Your task to perform on an android device: open app "DuckDuckGo Privacy Browser" (install if not already installed) Image 0: 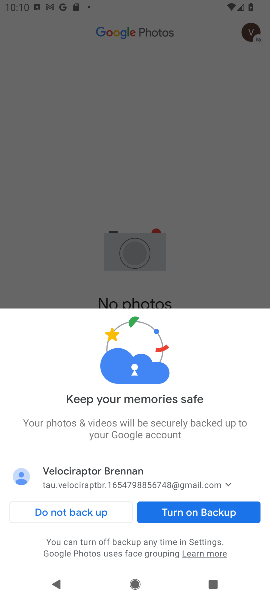
Step 0: press home button
Your task to perform on an android device: open app "DuckDuckGo Privacy Browser" (install if not already installed) Image 1: 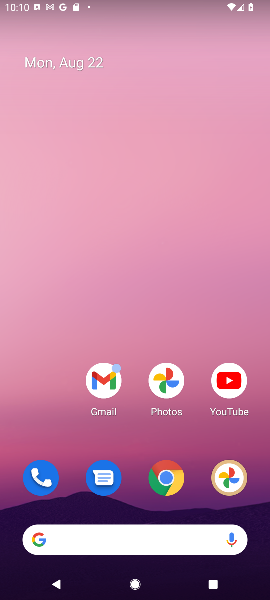
Step 1: drag from (124, 501) to (167, 22)
Your task to perform on an android device: open app "DuckDuckGo Privacy Browser" (install if not already installed) Image 2: 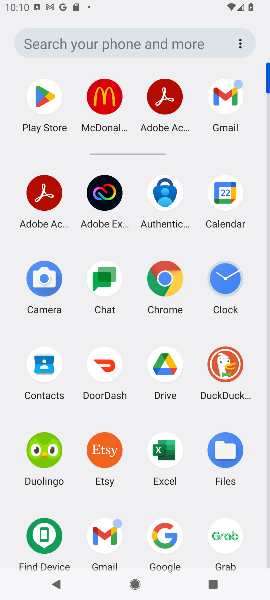
Step 2: click (221, 380)
Your task to perform on an android device: open app "DuckDuckGo Privacy Browser" (install if not already installed) Image 3: 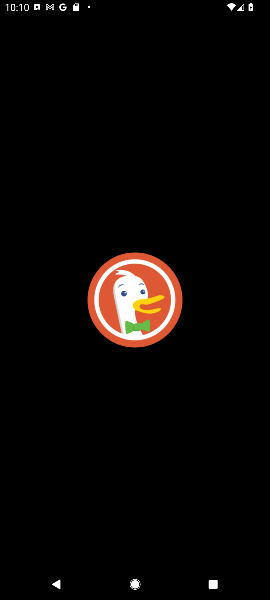
Step 3: task complete